Your task to perform on an android device: Go to Yahoo.com Image 0: 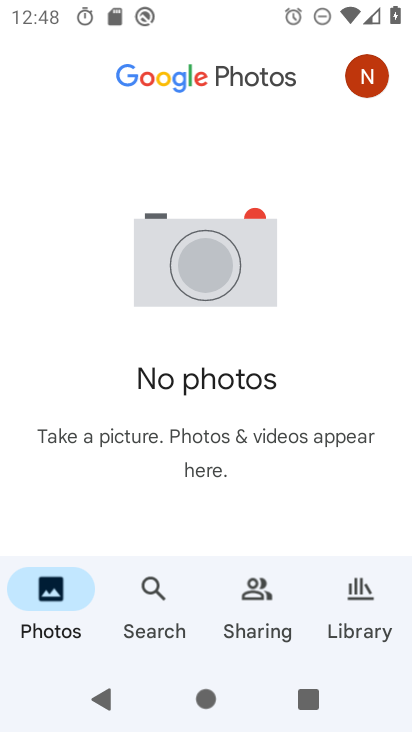
Step 0: press home button
Your task to perform on an android device: Go to Yahoo.com Image 1: 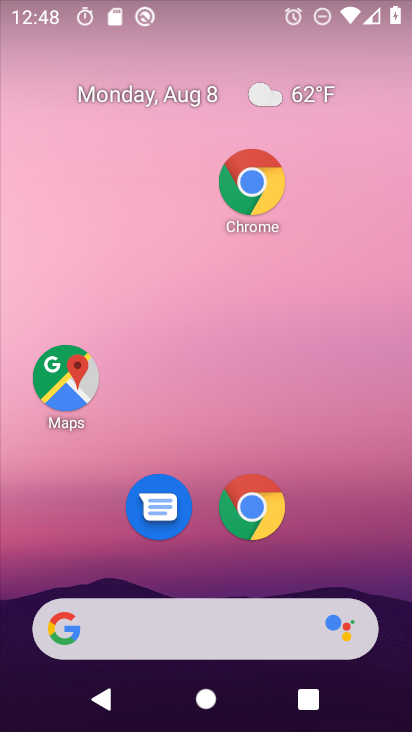
Step 1: drag from (337, 491) to (289, 0)
Your task to perform on an android device: Go to Yahoo.com Image 2: 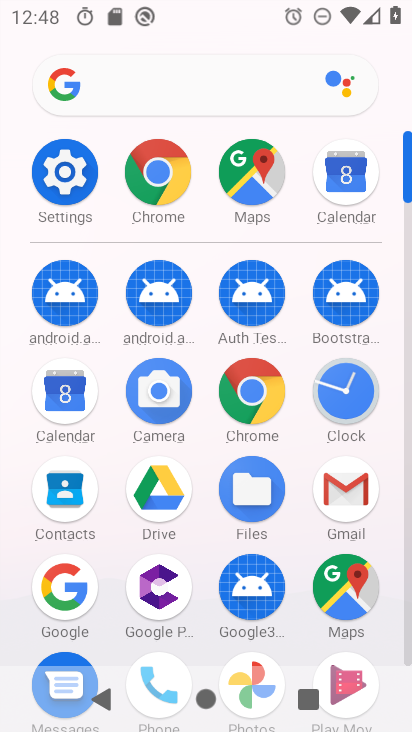
Step 2: click (251, 389)
Your task to perform on an android device: Go to Yahoo.com Image 3: 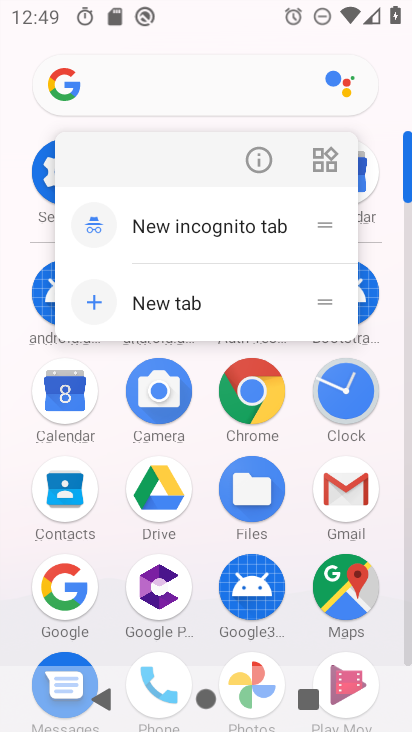
Step 3: click (249, 390)
Your task to perform on an android device: Go to Yahoo.com Image 4: 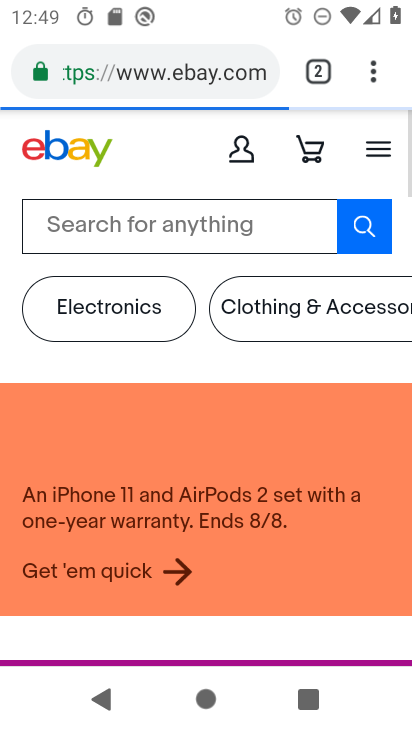
Step 4: click (216, 77)
Your task to perform on an android device: Go to Yahoo.com Image 5: 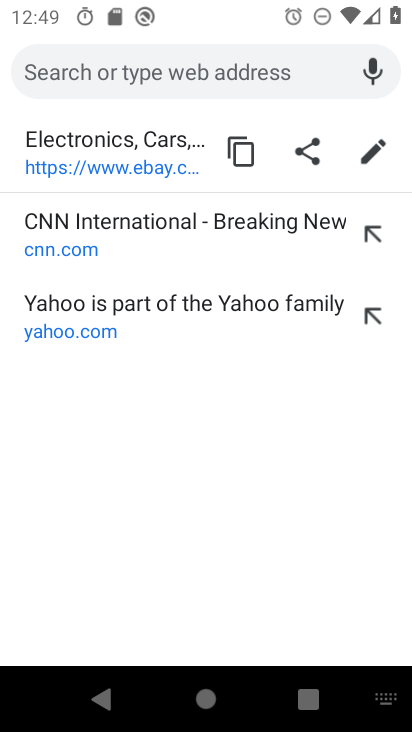
Step 5: click (105, 320)
Your task to perform on an android device: Go to Yahoo.com Image 6: 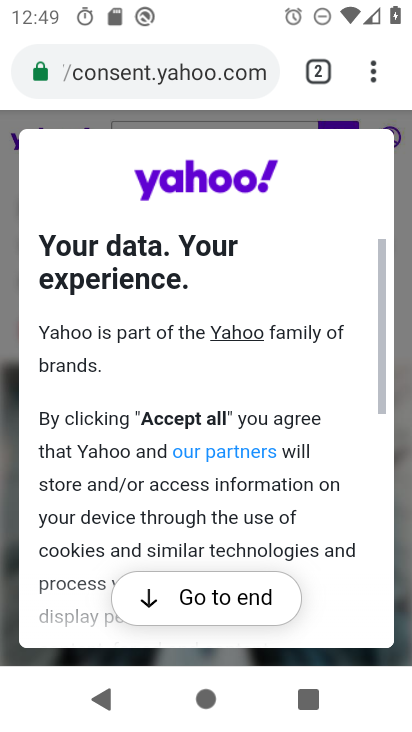
Step 6: task complete